Your task to perform on an android device: What is the recent news? Image 0: 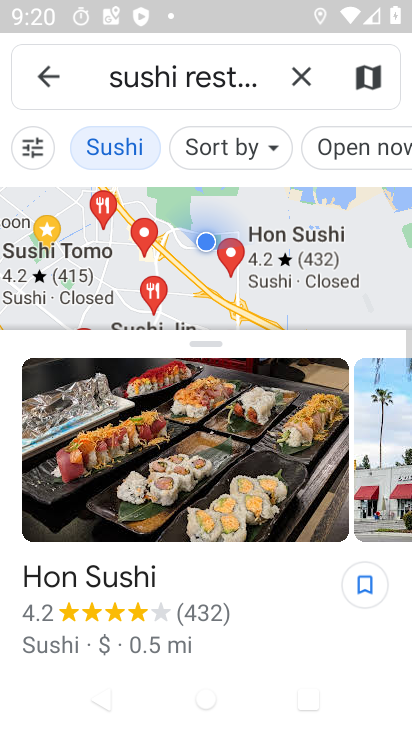
Step 0: press home button
Your task to perform on an android device: What is the recent news? Image 1: 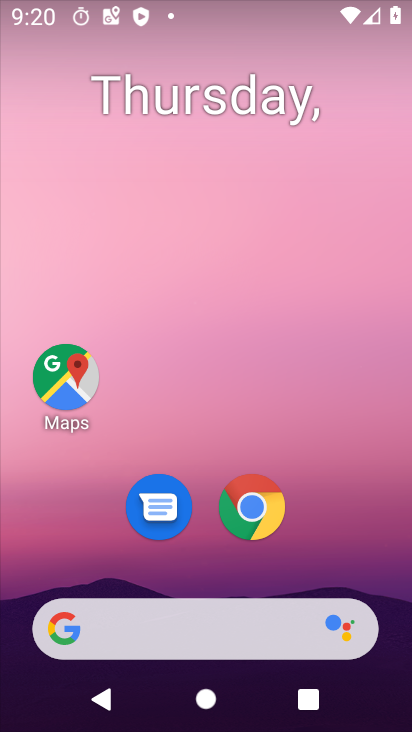
Step 1: drag from (187, 577) to (253, 0)
Your task to perform on an android device: What is the recent news? Image 2: 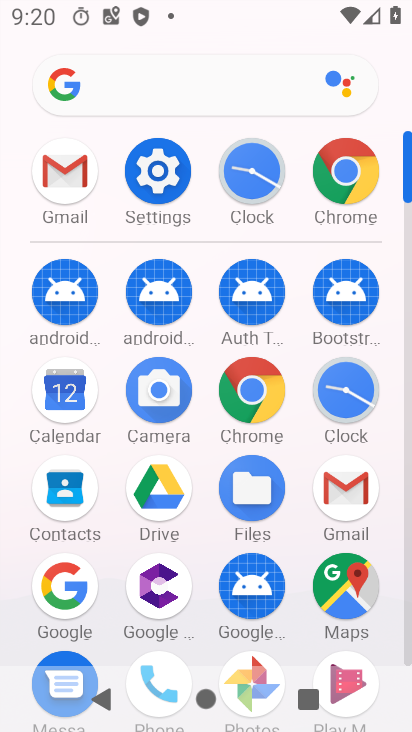
Step 2: click (224, 96)
Your task to perform on an android device: What is the recent news? Image 3: 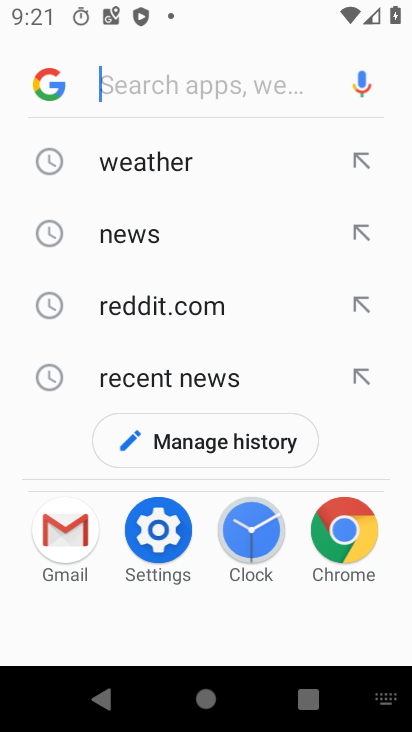
Step 3: click (181, 381)
Your task to perform on an android device: What is the recent news? Image 4: 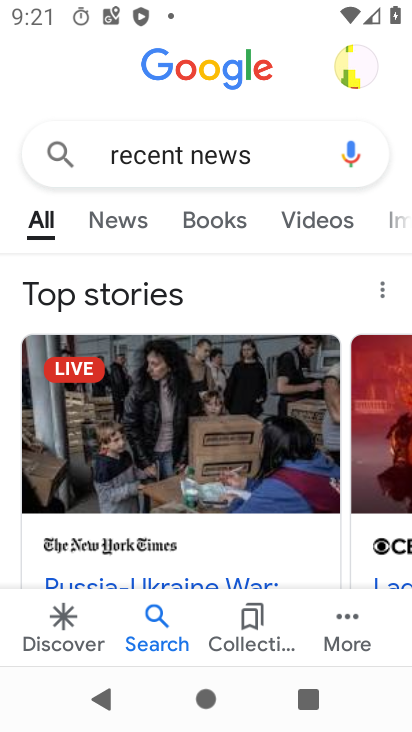
Step 4: task complete